Your task to perform on an android device: toggle translation in the chrome app Image 0: 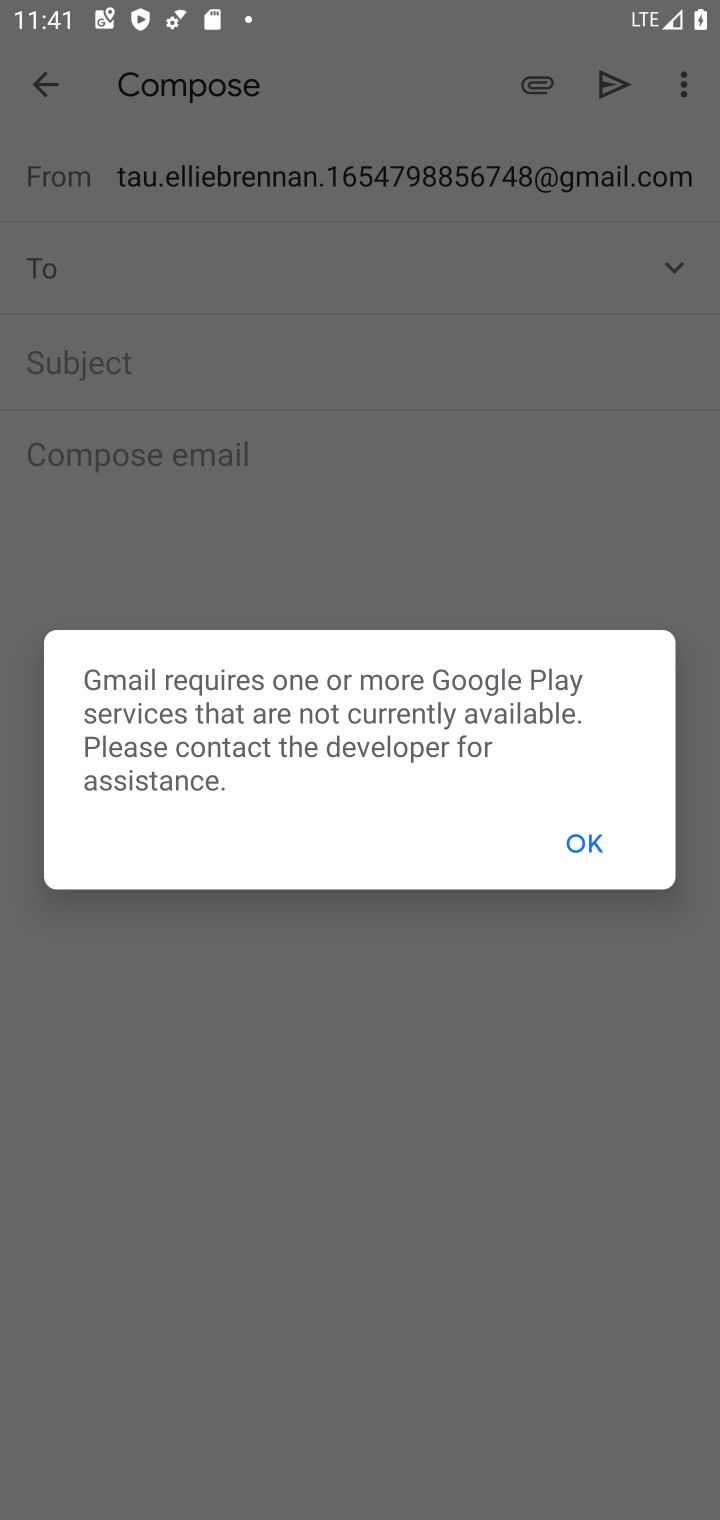
Step 0: press back button
Your task to perform on an android device: toggle translation in the chrome app Image 1: 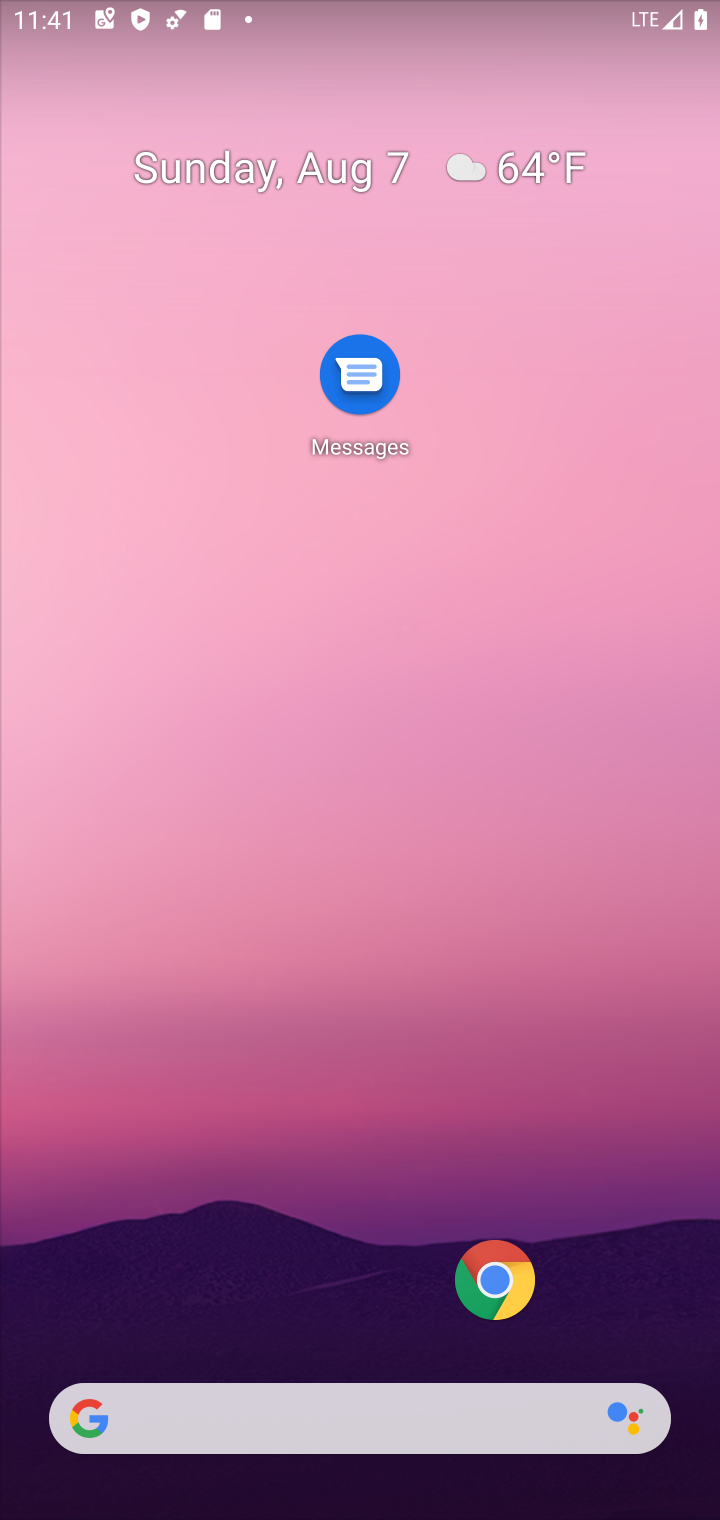
Step 1: drag from (355, 1241) to (421, 277)
Your task to perform on an android device: toggle translation in the chrome app Image 2: 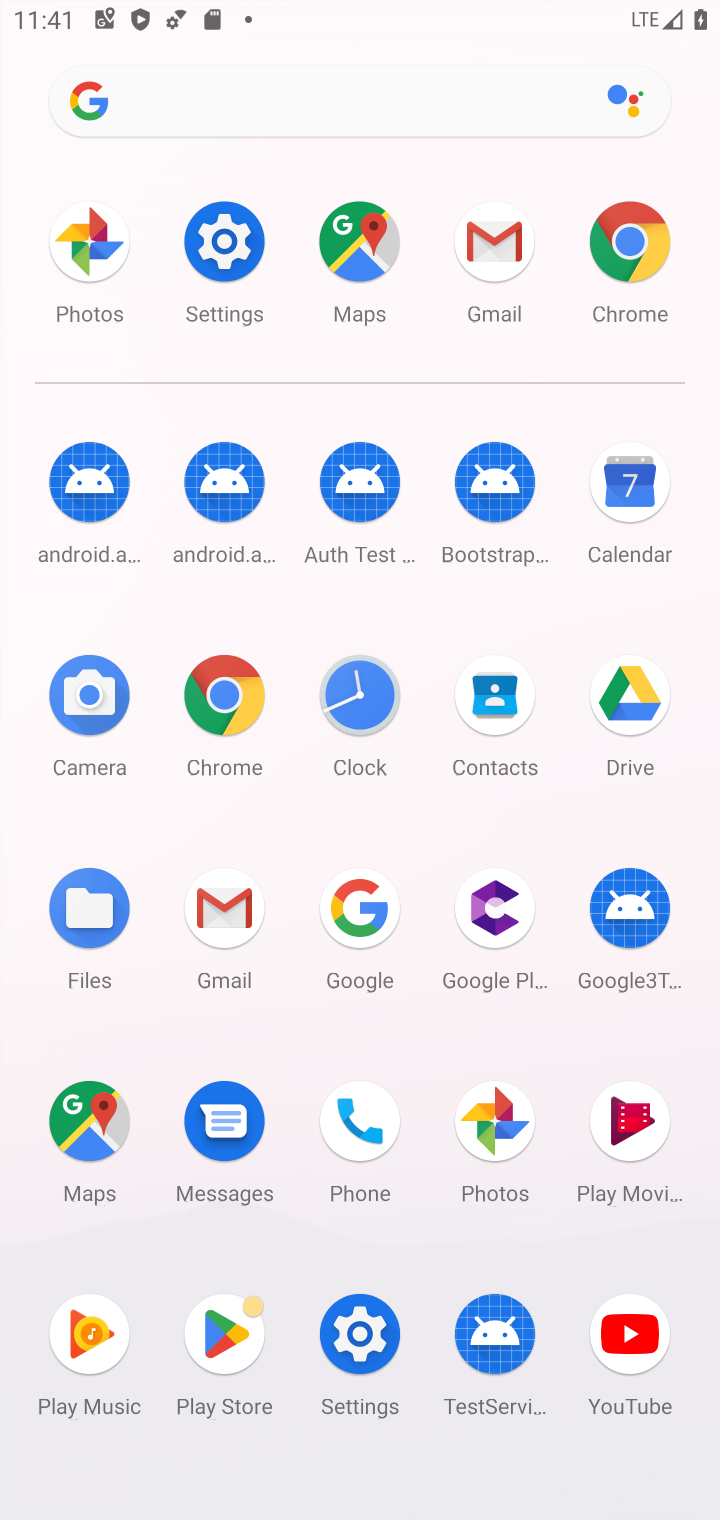
Step 2: click (631, 261)
Your task to perform on an android device: toggle translation in the chrome app Image 3: 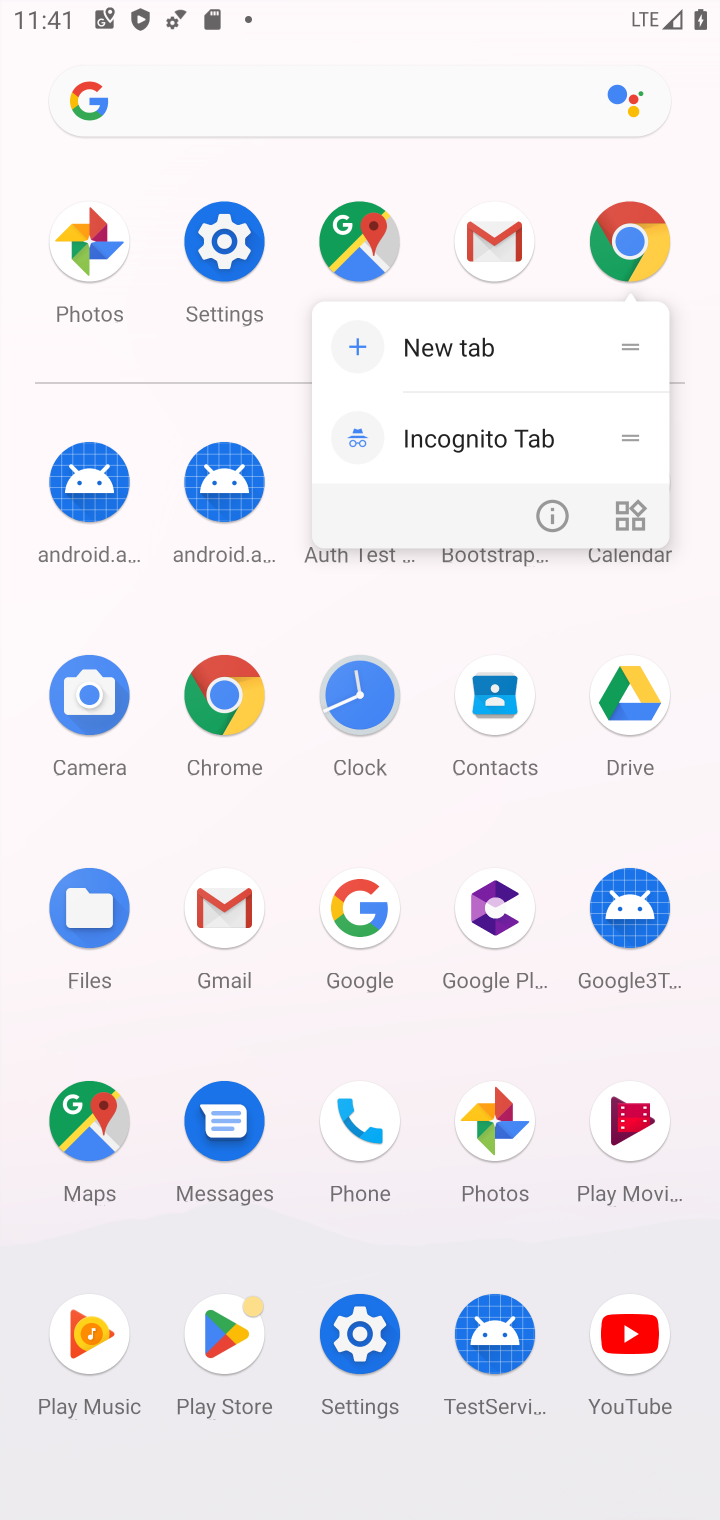
Step 3: click (639, 252)
Your task to perform on an android device: toggle translation in the chrome app Image 4: 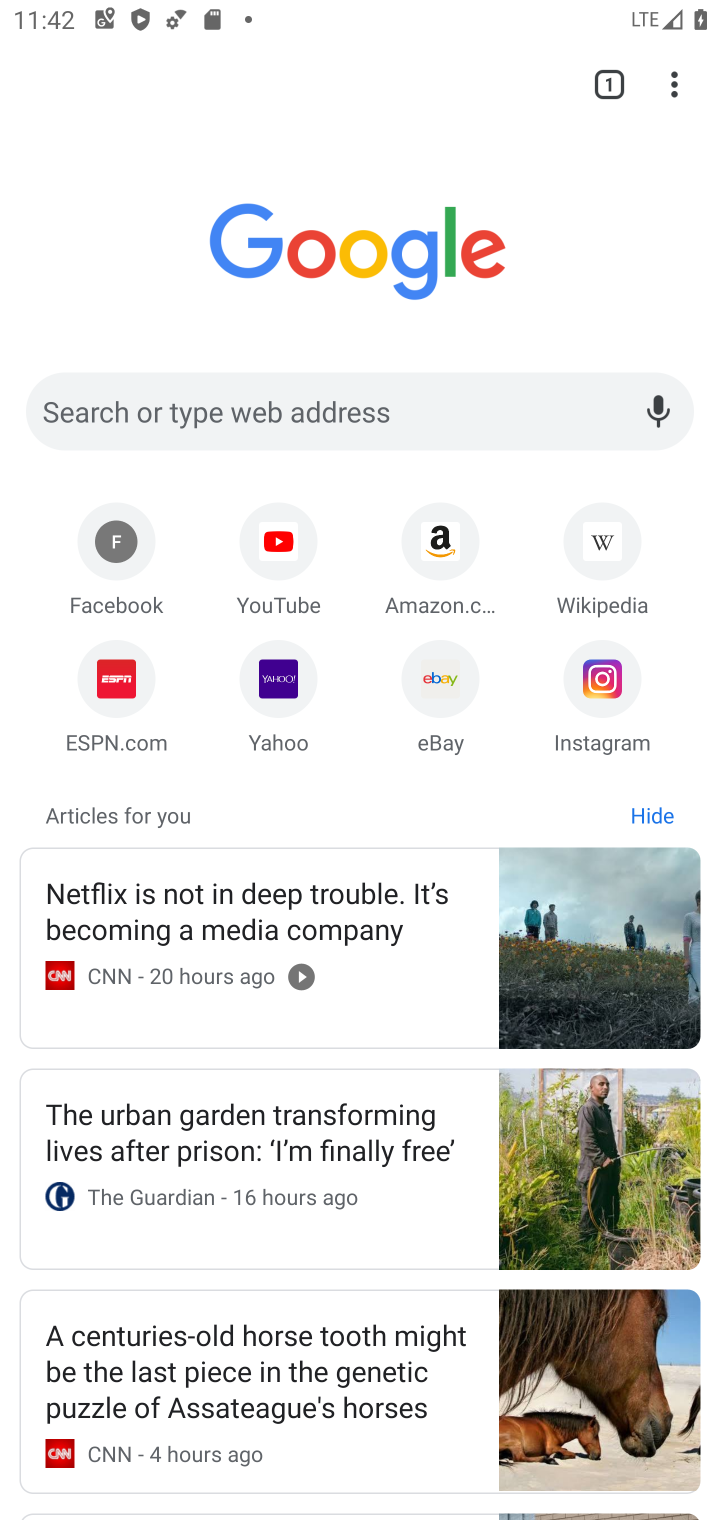
Step 4: drag from (681, 83) to (431, 720)
Your task to perform on an android device: toggle translation in the chrome app Image 5: 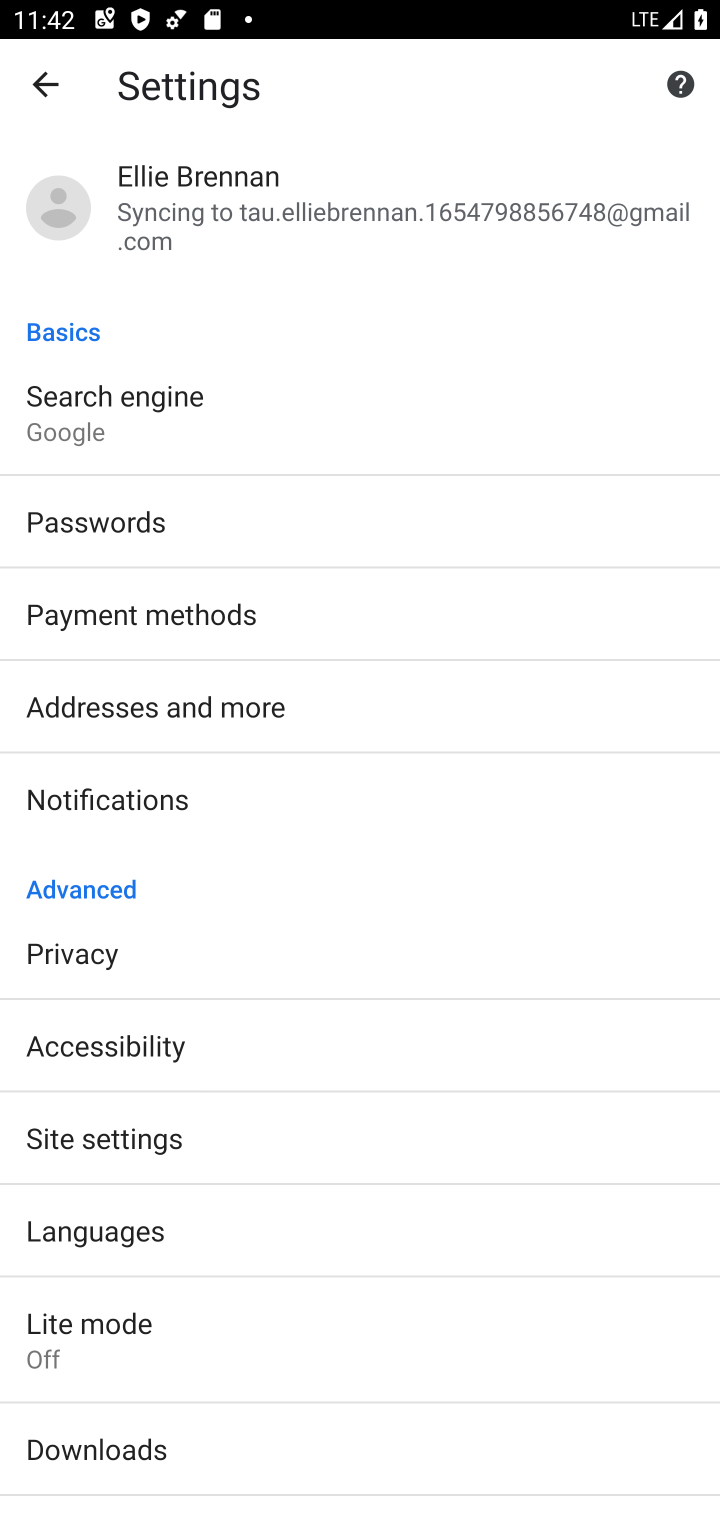
Step 5: click (170, 1230)
Your task to perform on an android device: toggle translation in the chrome app Image 6: 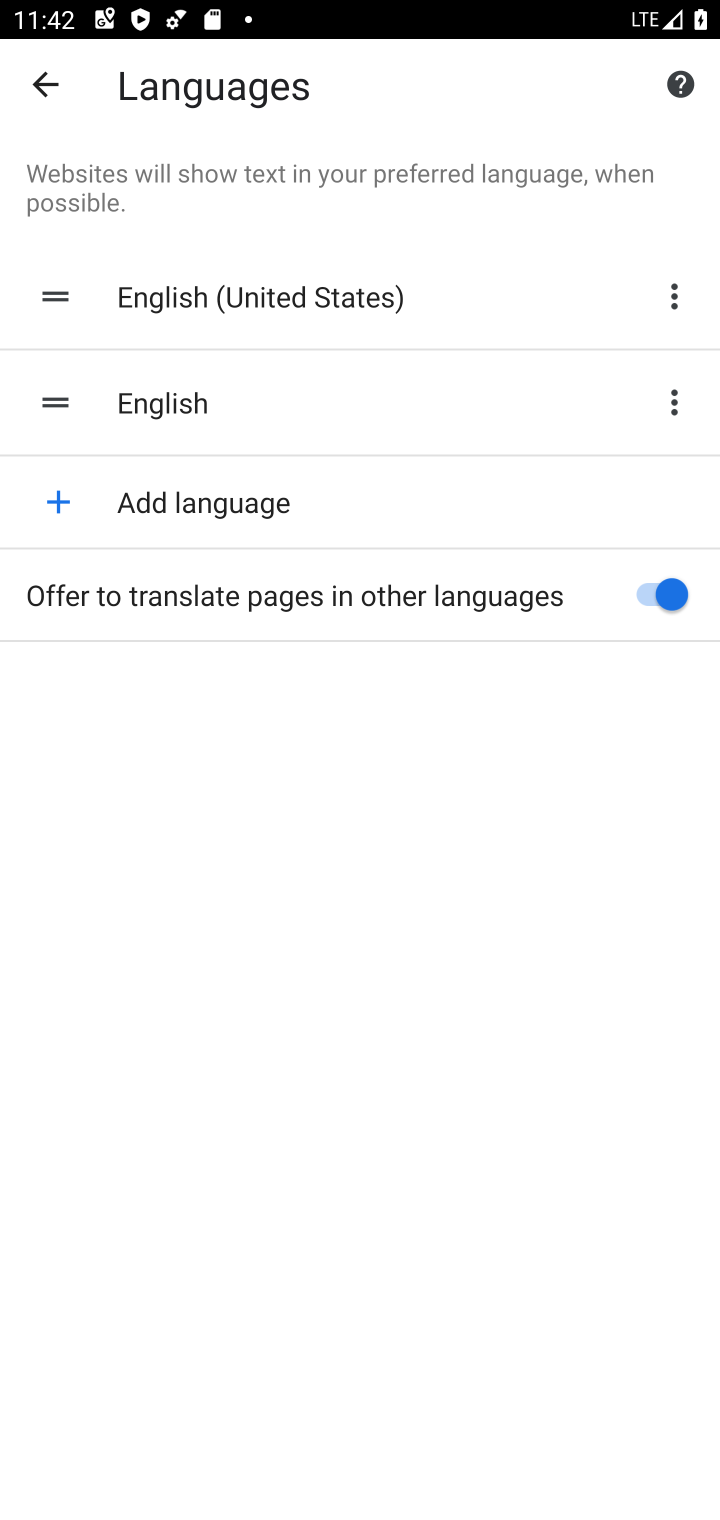
Step 6: click (661, 605)
Your task to perform on an android device: toggle translation in the chrome app Image 7: 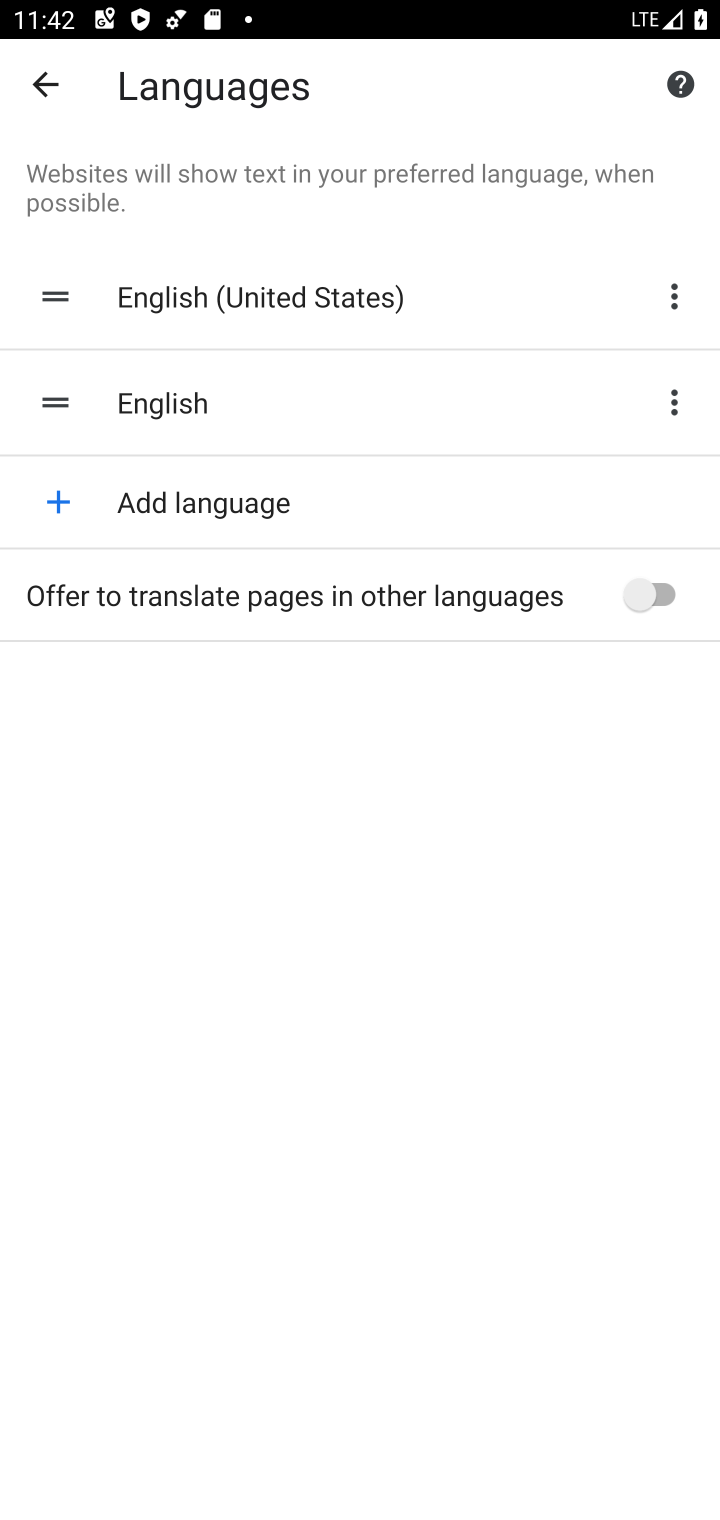
Step 7: task complete